Your task to perform on an android device: turn off location Image 0: 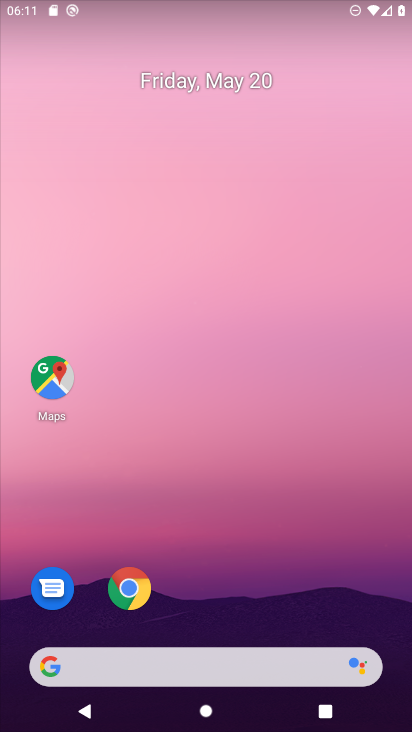
Step 0: drag from (274, 634) to (271, 228)
Your task to perform on an android device: turn off location Image 1: 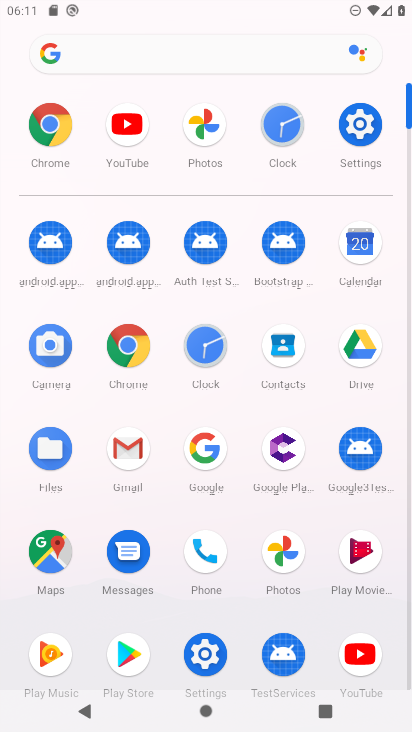
Step 1: click (349, 123)
Your task to perform on an android device: turn off location Image 2: 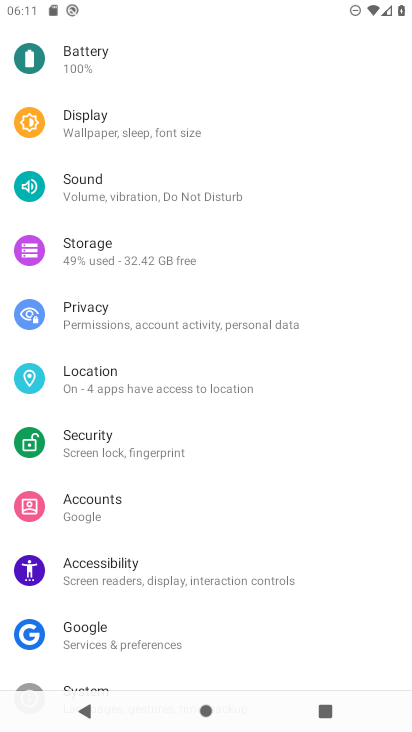
Step 2: click (103, 390)
Your task to perform on an android device: turn off location Image 3: 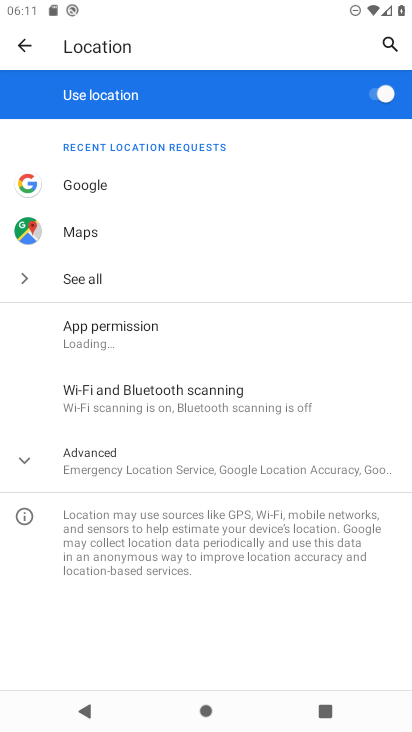
Step 3: click (366, 105)
Your task to perform on an android device: turn off location Image 4: 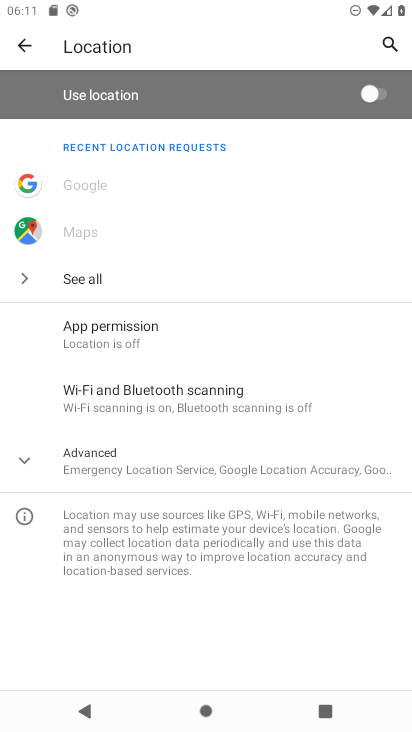
Step 4: task complete